Your task to perform on an android device: delete a single message in the gmail app Image 0: 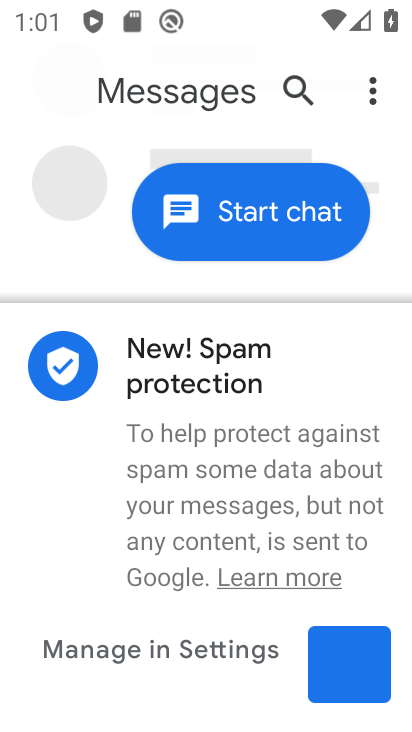
Step 0: press home button
Your task to perform on an android device: delete a single message in the gmail app Image 1: 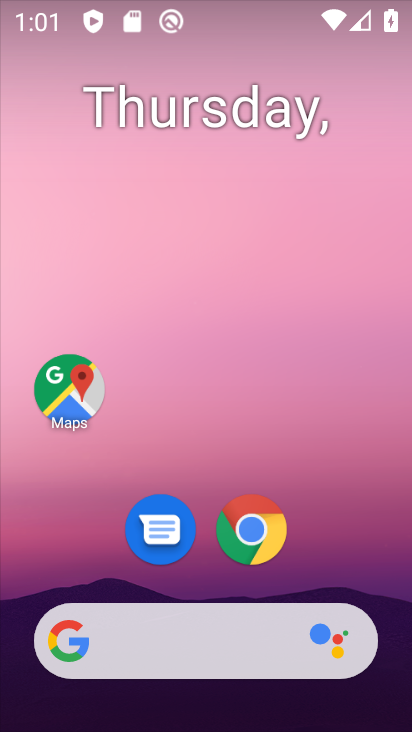
Step 1: drag from (194, 705) to (194, 162)
Your task to perform on an android device: delete a single message in the gmail app Image 2: 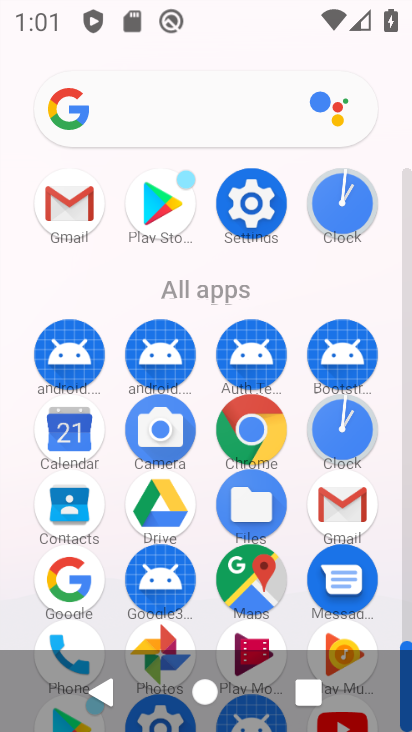
Step 2: click (66, 202)
Your task to perform on an android device: delete a single message in the gmail app Image 3: 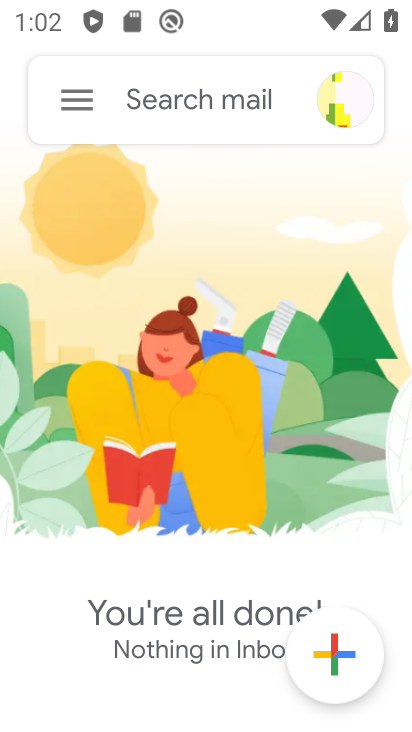
Step 3: task complete